Your task to perform on an android device: Open CNN.com Image 0: 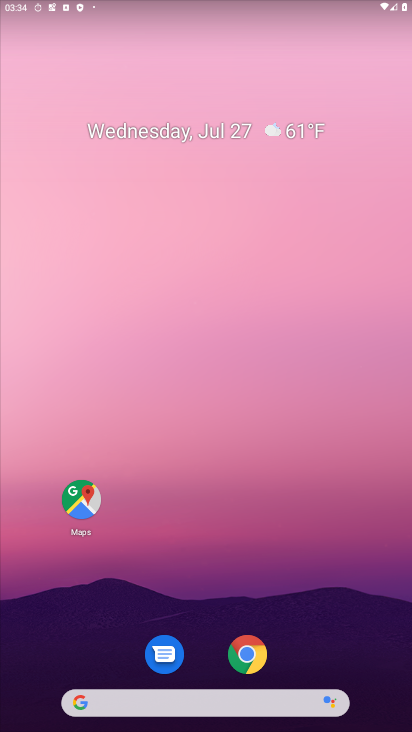
Step 0: drag from (215, 660) to (179, 139)
Your task to perform on an android device: Open CNN.com Image 1: 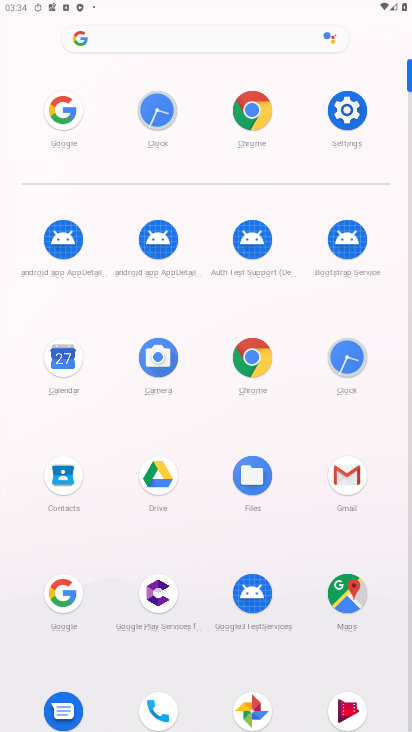
Step 1: click (253, 354)
Your task to perform on an android device: Open CNN.com Image 2: 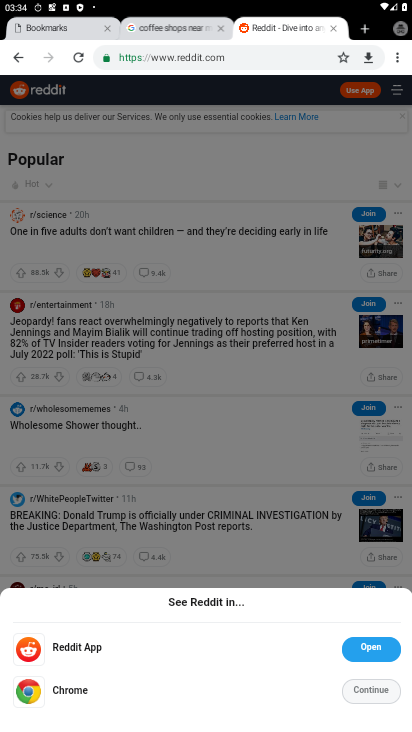
Step 2: click (146, 62)
Your task to perform on an android device: Open CNN.com Image 3: 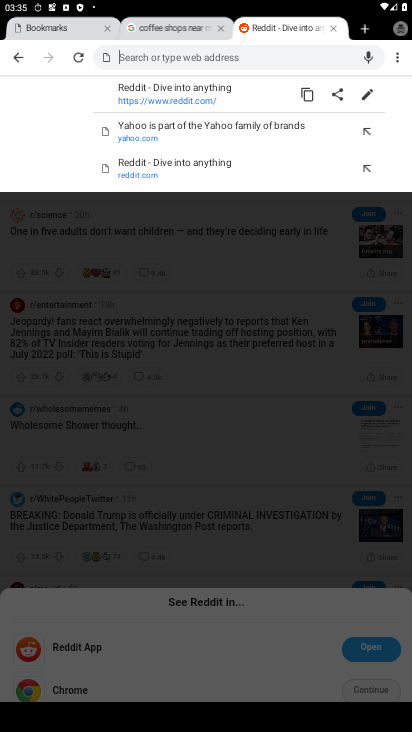
Step 3: type "cnn.com"
Your task to perform on an android device: Open CNN.com Image 4: 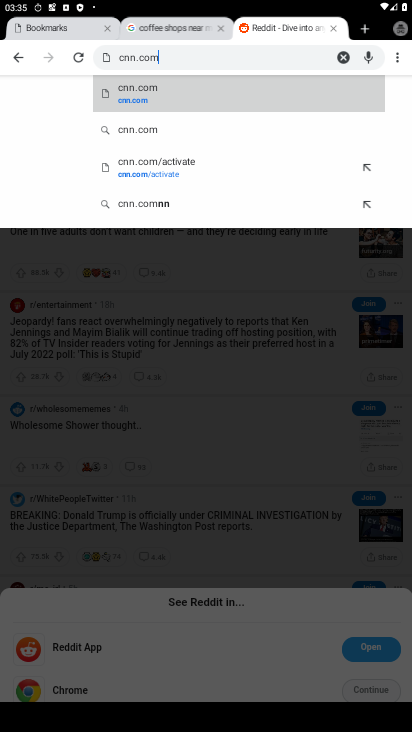
Step 4: click (197, 84)
Your task to perform on an android device: Open CNN.com Image 5: 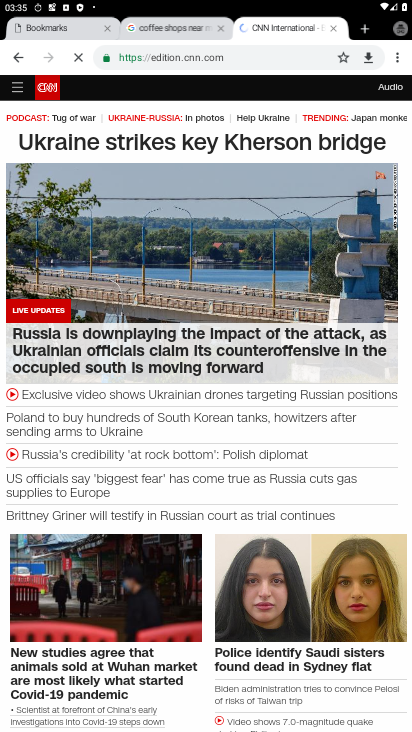
Step 5: task complete